Your task to perform on an android device: Open maps Image 0: 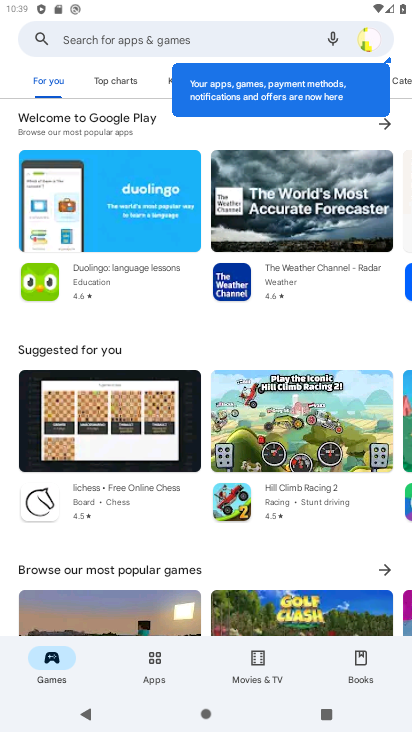
Step 0: press home button
Your task to perform on an android device: Open maps Image 1: 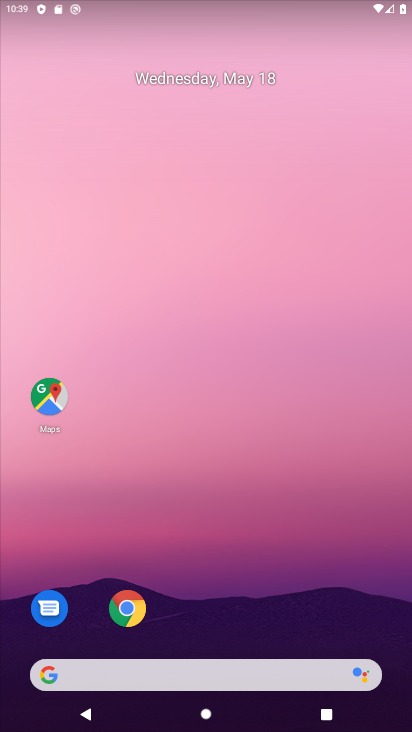
Step 1: click (49, 395)
Your task to perform on an android device: Open maps Image 2: 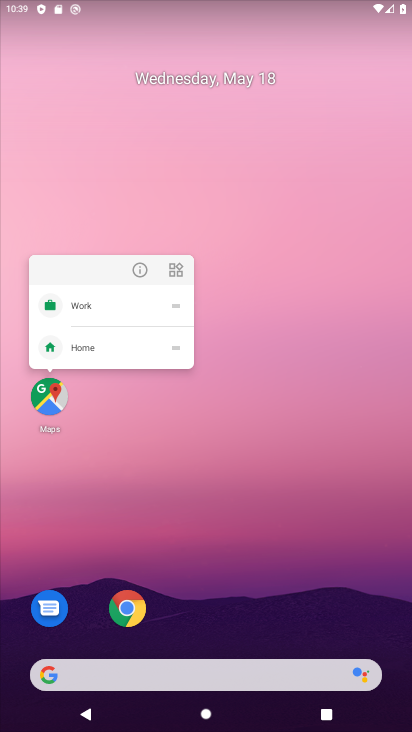
Step 2: click (45, 391)
Your task to perform on an android device: Open maps Image 3: 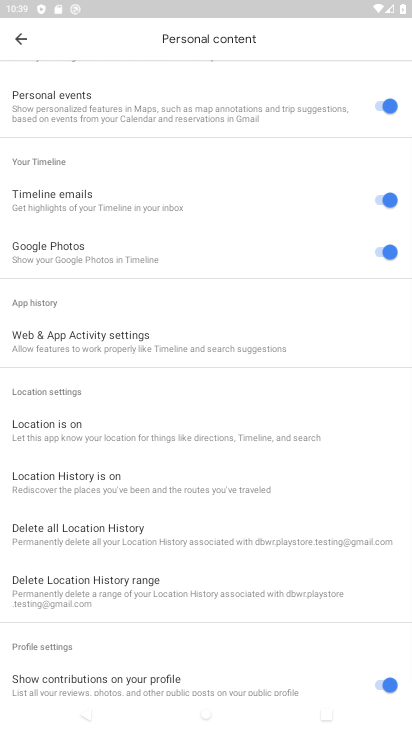
Step 3: task complete